Your task to perform on an android device: When is my next appointment? Image 0: 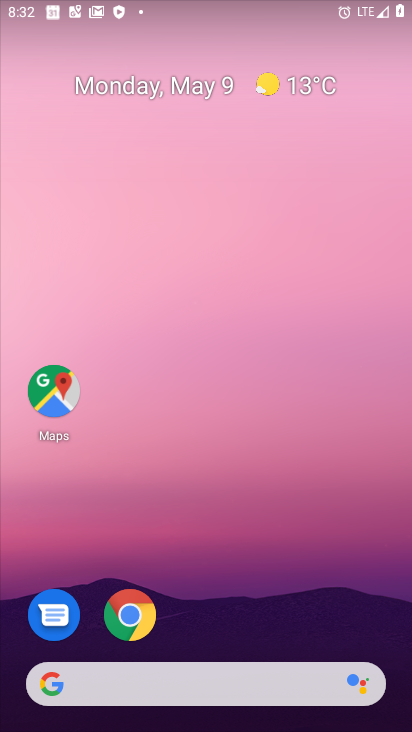
Step 0: click (148, 69)
Your task to perform on an android device: When is my next appointment? Image 1: 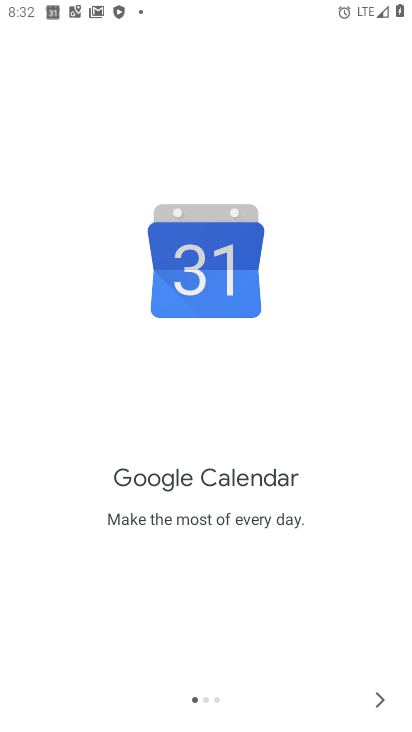
Step 1: click (373, 706)
Your task to perform on an android device: When is my next appointment? Image 2: 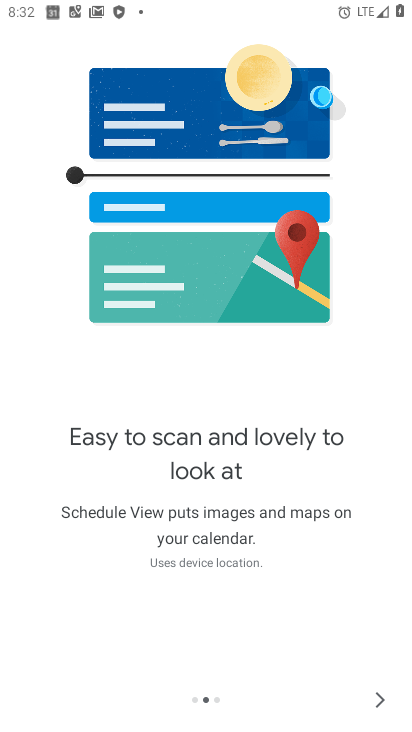
Step 2: click (373, 706)
Your task to perform on an android device: When is my next appointment? Image 3: 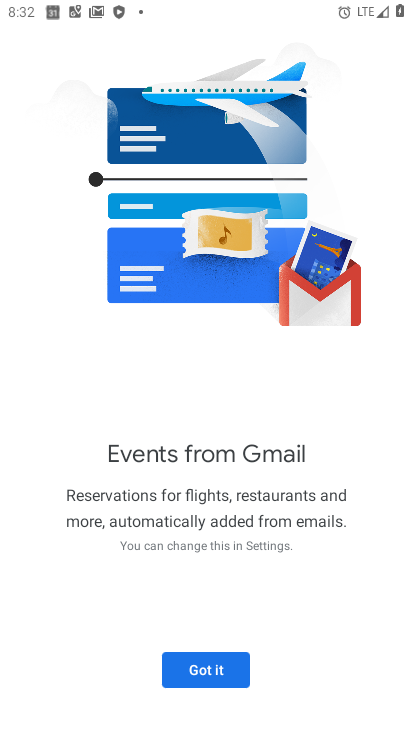
Step 3: click (190, 684)
Your task to perform on an android device: When is my next appointment? Image 4: 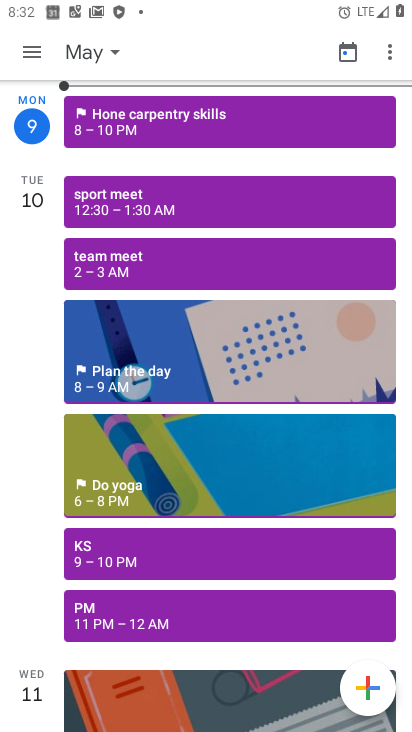
Step 4: task complete